Your task to perform on an android device: open app "Pinterest" (install if not already installed) and enter user name: "Switzerland@yahoo.com" and password: "arithmetics" Image 0: 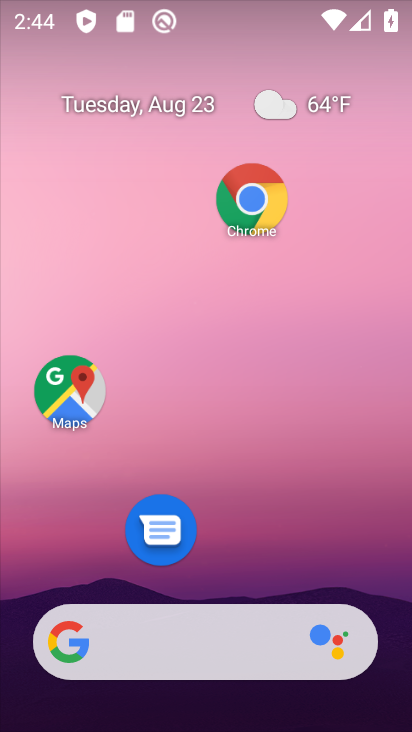
Step 0: drag from (235, 506) to (282, 3)
Your task to perform on an android device: open app "Pinterest" (install if not already installed) and enter user name: "Switzerland@yahoo.com" and password: "arithmetics" Image 1: 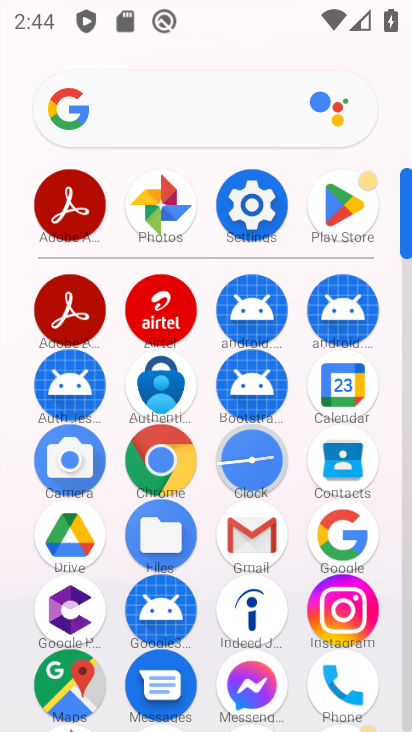
Step 1: click (333, 204)
Your task to perform on an android device: open app "Pinterest" (install if not already installed) and enter user name: "Switzerland@yahoo.com" and password: "arithmetics" Image 2: 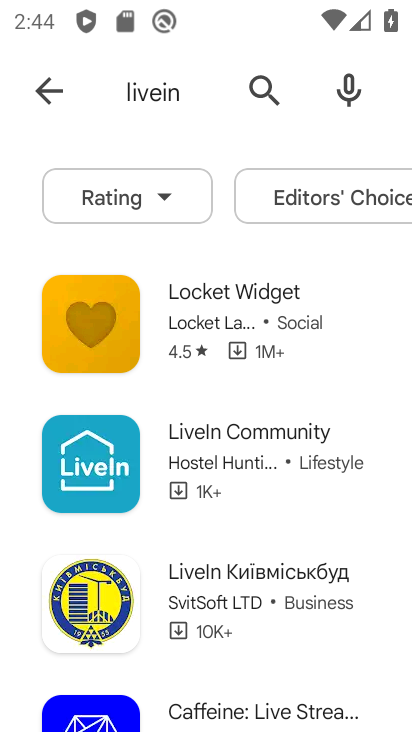
Step 2: click (146, 96)
Your task to perform on an android device: open app "Pinterest" (install if not already installed) and enter user name: "Switzerland@yahoo.com" and password: "arithmetics" Image 3: 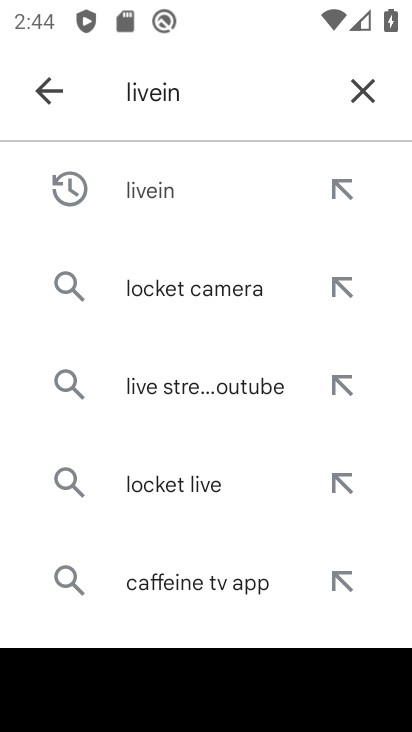
Step 3: click (368, 87)
Your task to perform on an android device: open app "Pinterest" (install if not already installed) and enter user name: "Switzerland@yahoo.com" and password: "arithmetics" Image 4: 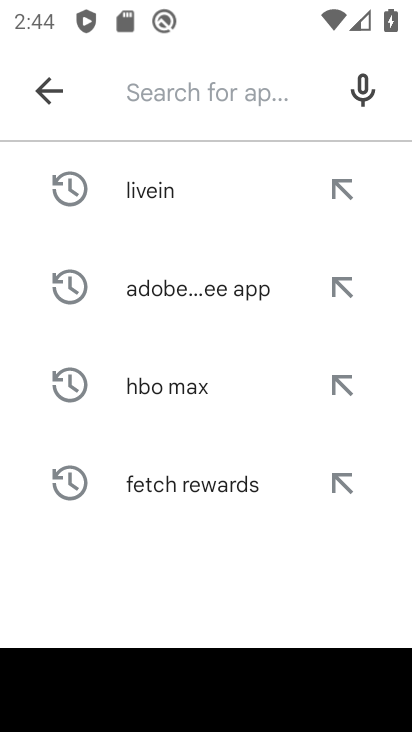
Step 4: type "Pinterest"
Your task to perform on an android device: open app "Pinterest" (install if not already installed) and enter user name: "Switzerland@yahoo.com" and password: "arithmetics" Image 5: 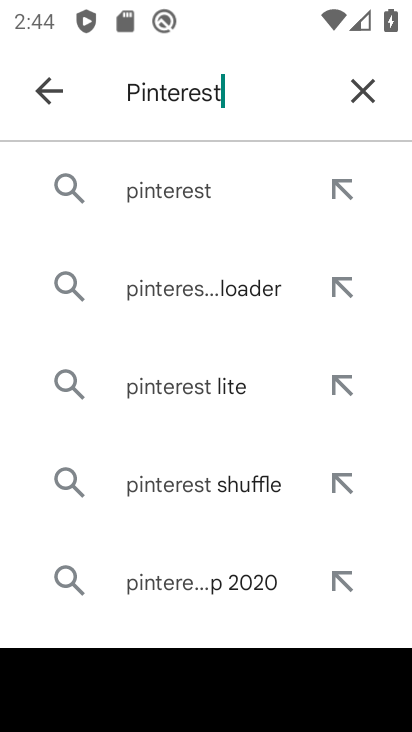
Step 5: click (193, 199)
Your task to perform on an android device: open app "Pinterest" (install if not already installed) and enter user name: "Switzerland@yahoo.com" and password: "arithmetics" Image 6: 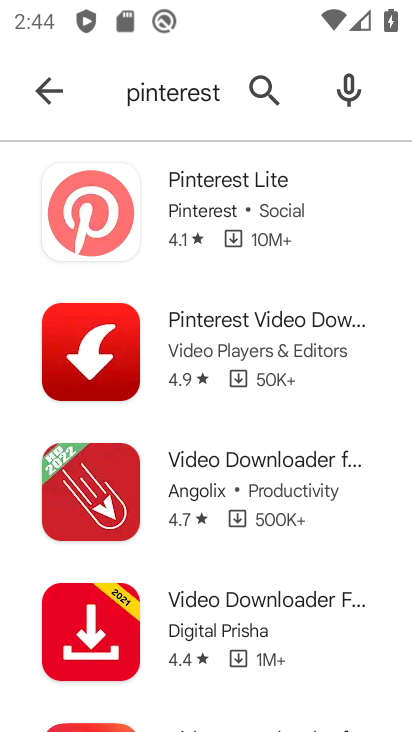
Step 6: task complete